Your task to perform on an android device: Search for vegetarian restaurants on Maps Image 0: 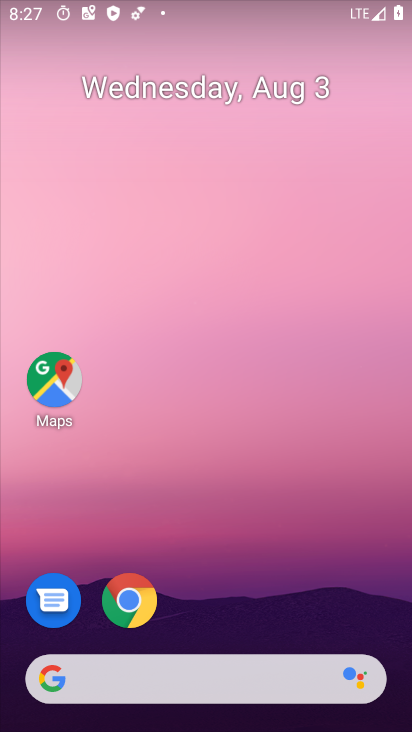
Step 0: click (51, 401)
Your task to perform on an android device: Search for vegetarian restaurants on Maps Image 1: 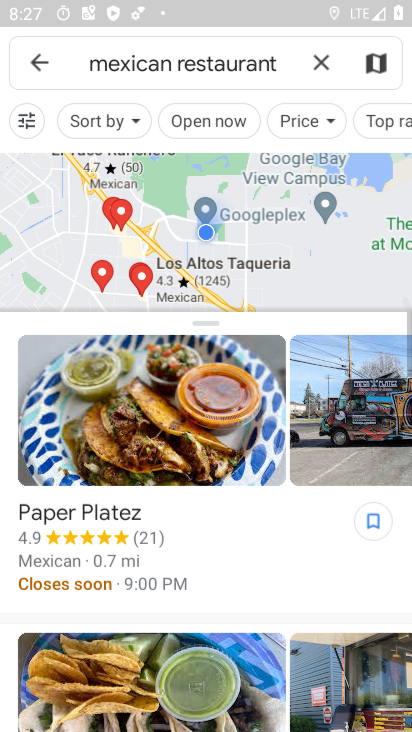
Step 1: click (118, 69)
Your task to perform on an android device: Search for vegetarian restaurants on Maps Image 2: 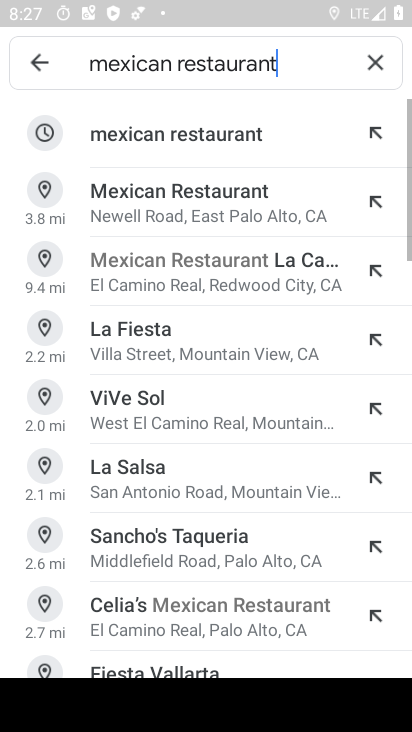
Step 2: click (122, 62)
Your task to perform on an android device: Search for vegetarian restaurants on Maps Image 3: 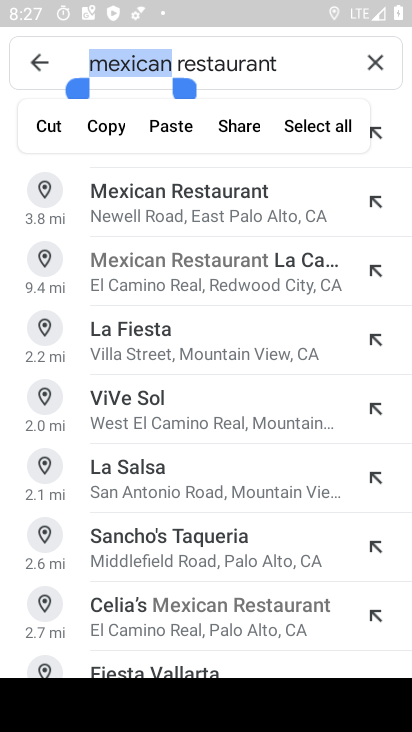
Step 3: type "Vegetarian"
Your task to perform on an android device: Search for vegetarian restaurants on Maps Image 4: 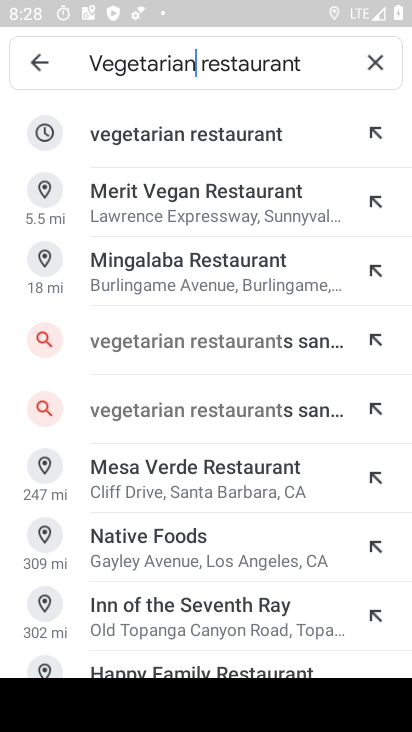
Step 4: click (143, 142)
Your task to perform on an android device: Search for vegetarian restaurants on Maps Image 5: 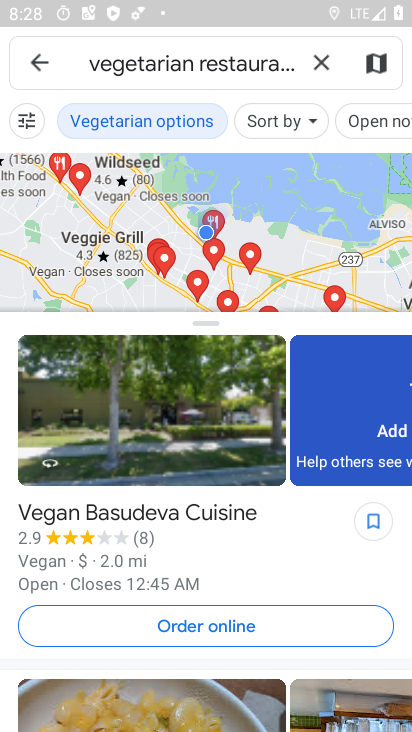
Step 5: task complete